Your task to perform on an android device: change notification settings in the gmail app Image 0: 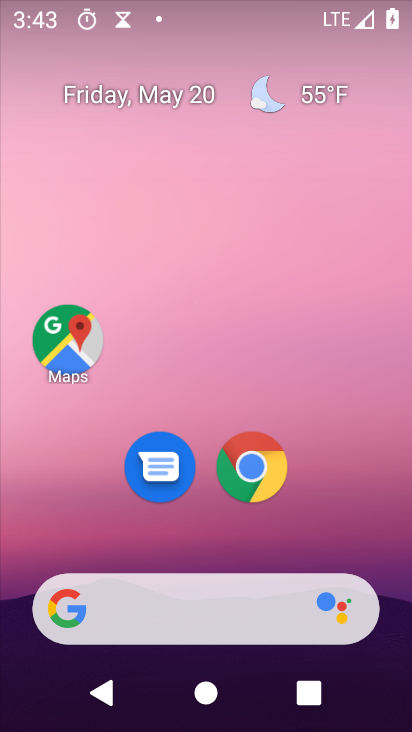
Step 0: drag from (207, 548) to (84, 16)
Your task to perform on an android device: change notification settings in the gmail app Image 1: 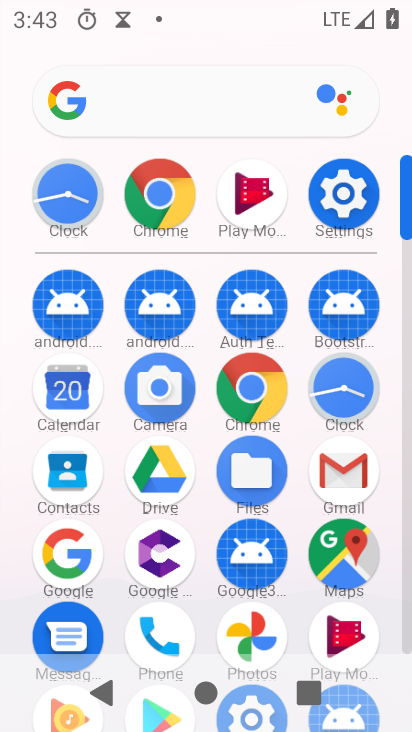
Step 1: click (351, 456)
Your task to perform on an android device: change notification settings in the gmail app Image 2: 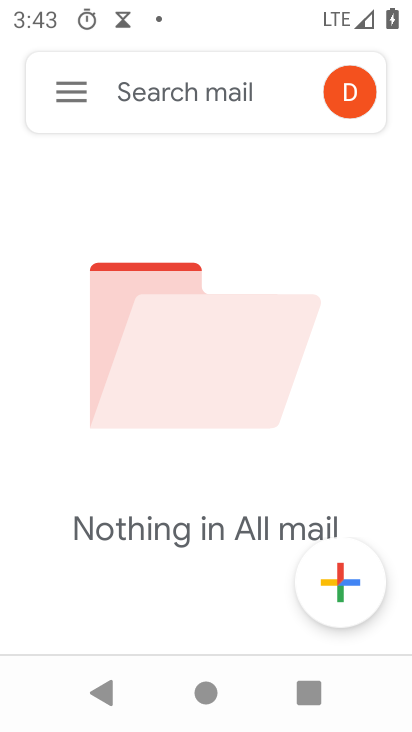
Step 2: click (57, 96)
Your task to perform on an android device: change notification settings in the gmail app Image 3: 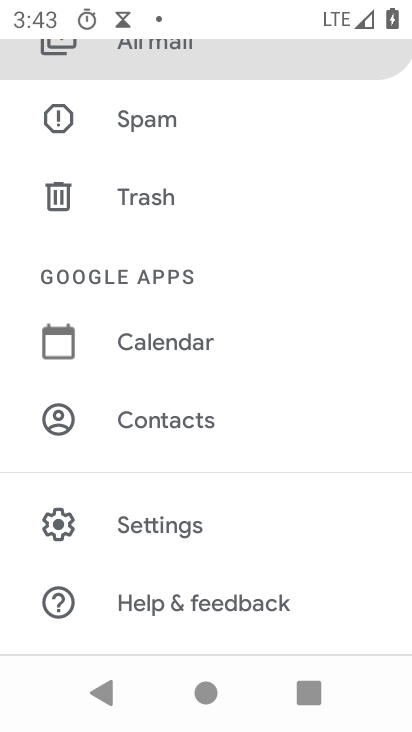
Step 3: click (135, 515)
Your task to perform on an android device: change notification settings in the gmail app Image 4: 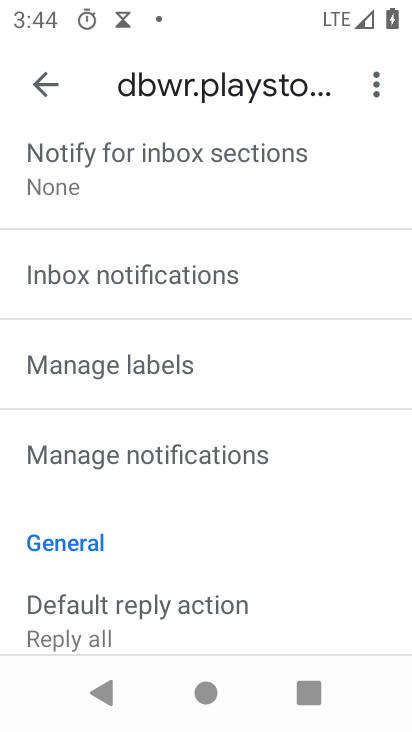
Step 4: click (126, 449)
Your task to perform on an android device: change notification settings in the gmail app Image 5: 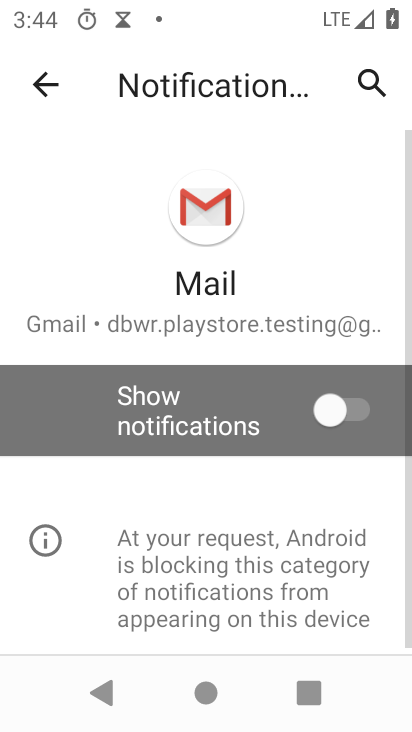
Step 5: click (339, 413)
Your task to perform on an android device: change notification settings in the gmail app Image 6: 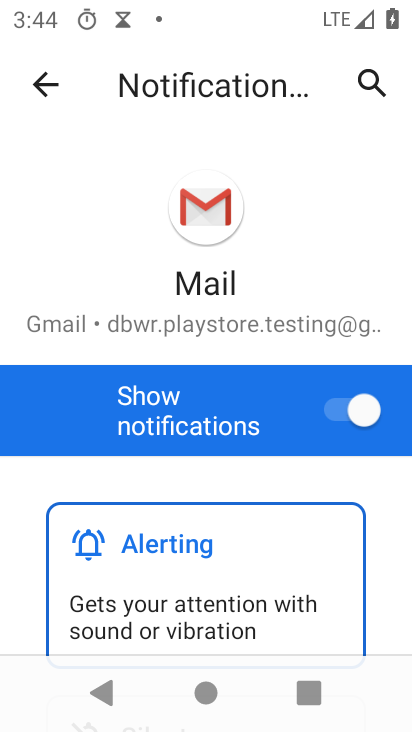
Step 6: task complete